Your task to perform on an android device: open a bookmark in the chrome app Image 0: 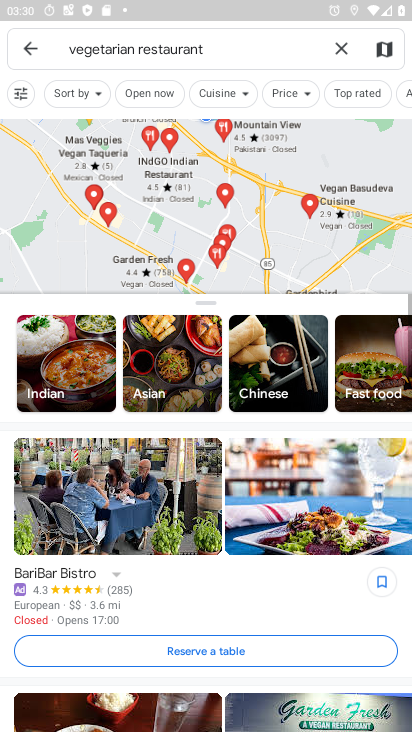
Step 0: press home button
Your task to perform on an android device: open a bookmark in the chrome app Image 1: 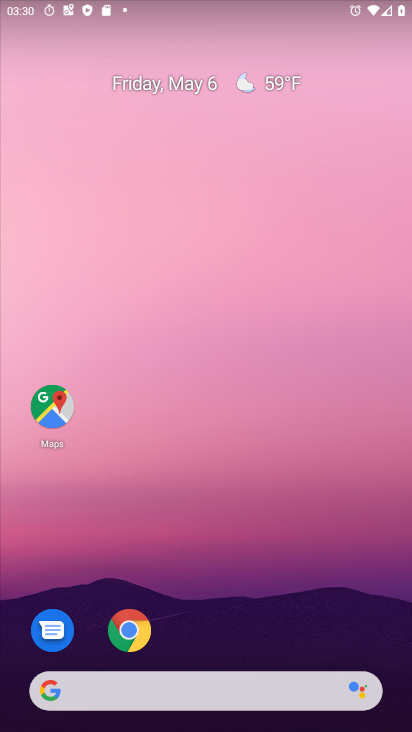
Step 1: click (145, 624)
Your task to perform on an android device: open a bookmark in the chrome app Image 2: 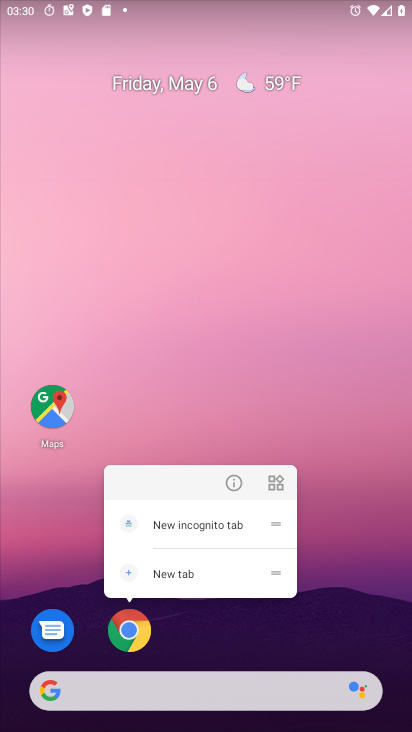
Step 2: click (130, 634)
Your task to perform on an android device: open a bookmark in the chrome app Image 3: 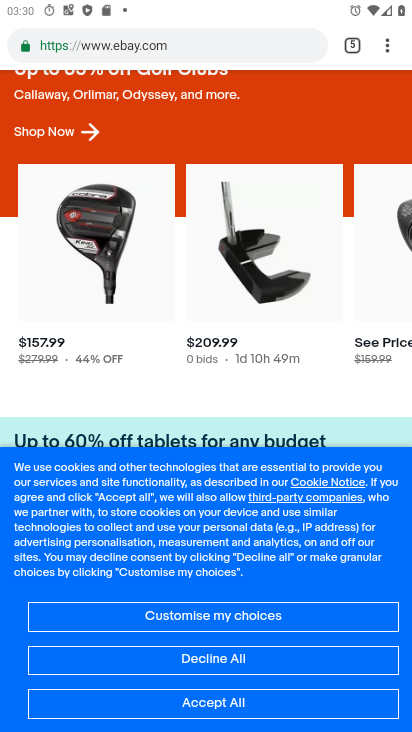
Step 3: drag from (381, 50) to (271, 181)
Your task to perform on an android device: open a bookmark in the chrome app Image 4: 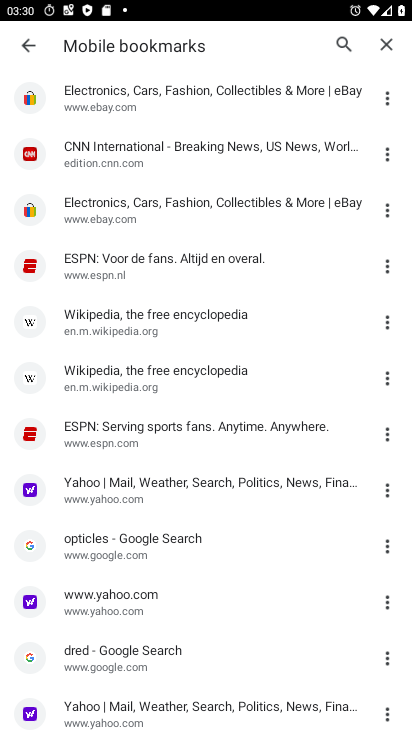
Step 4: click (151, 161)
Your task to perform on an android device: open a bookmark in the chrome app Image 5: 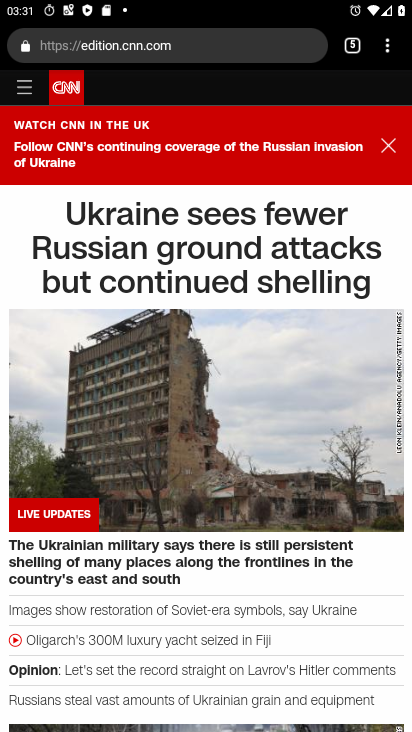
Step 5: task complete